Your task to perform on an android device: toggle notifications settings in the gmail app Image 0: 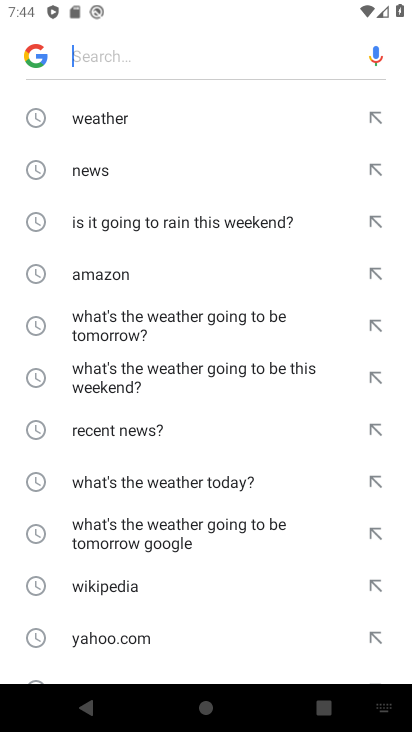
Step 0: press back button
Your task to perform on an android device: toggle notifications settings in the gmail app Image 1: 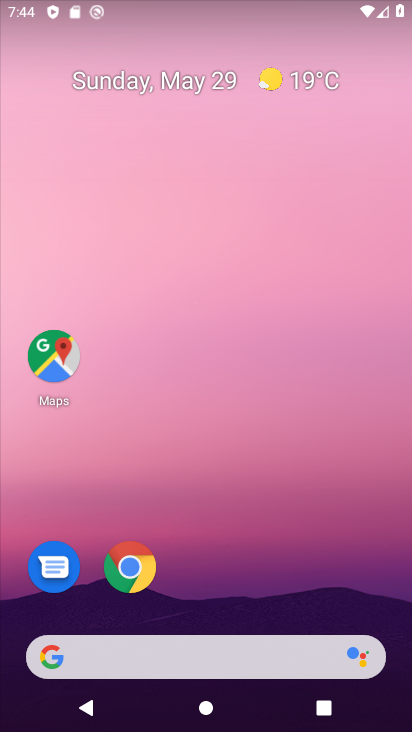
Step 1: drag from (395, 680) to (304, 12)
Your task to perform on an android device: toggle notifications settings in the gmail app Image 2: 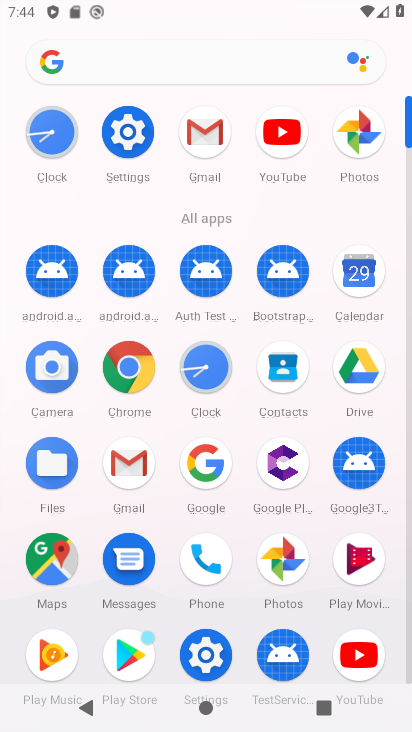
Step 2: click (187, 133)
Your task to perform on an android device: toggle notifications settings in the gmail app Image 3: 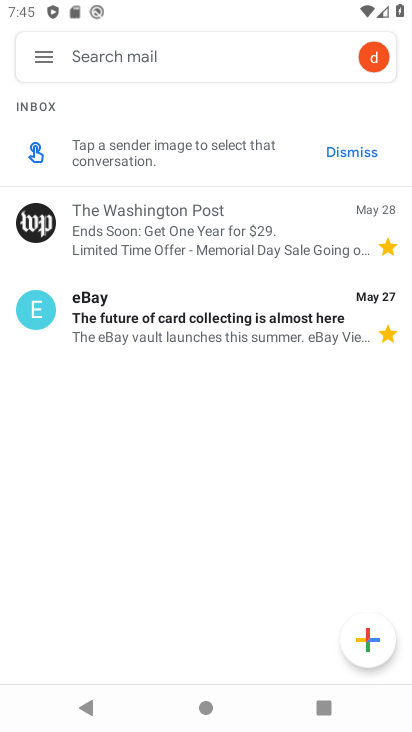
Step 3: click (46, 50)
Your task to perform on an android device: toggle notifications settings in the gmail app Image 4: 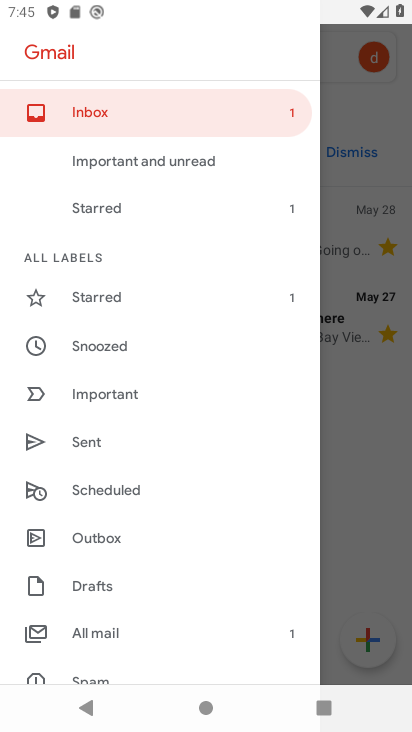
Step 4: drag from (191, 652) to (203, 279)
Your task to perform on an android device: toggle notifications settings in the gmail app Image 5: 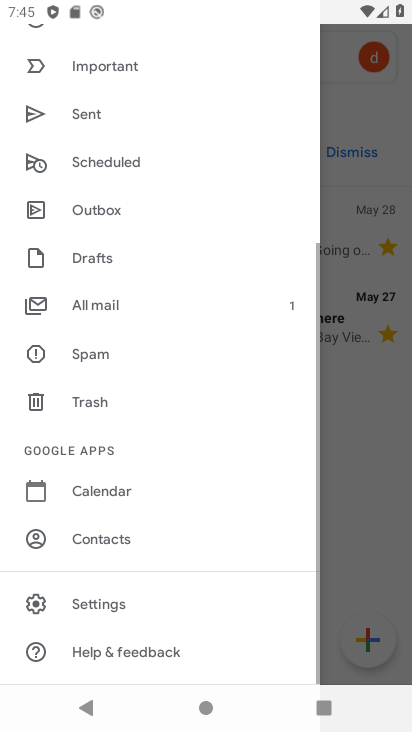
Step 5: click (98, 606)
Your task to perform on an android device: toggle notifications settings in the gmail app Image 6: 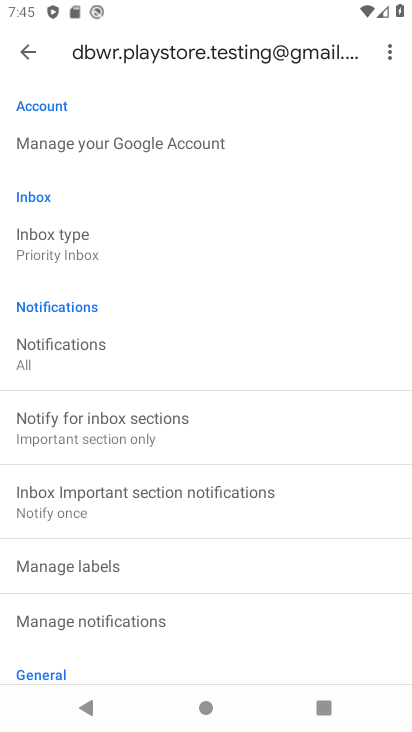
Step 6: click (28, 49)
Your task to perform on an android device: toggle notifications settings in the gmail app Image 7: 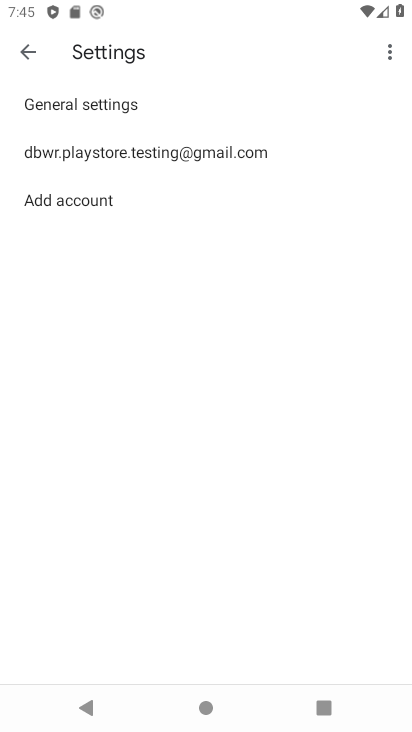
Step 7: click (57, 108)
Your task to perform on an android device: toggle notifications settings in the gmail app Image 8: 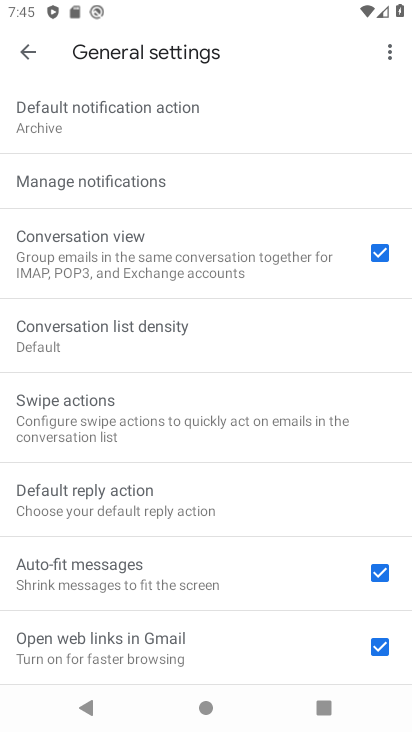
Step 8: click (93, 189)
Your task to perform on an android device: toggle notifications settings in the gmail app Image 9: 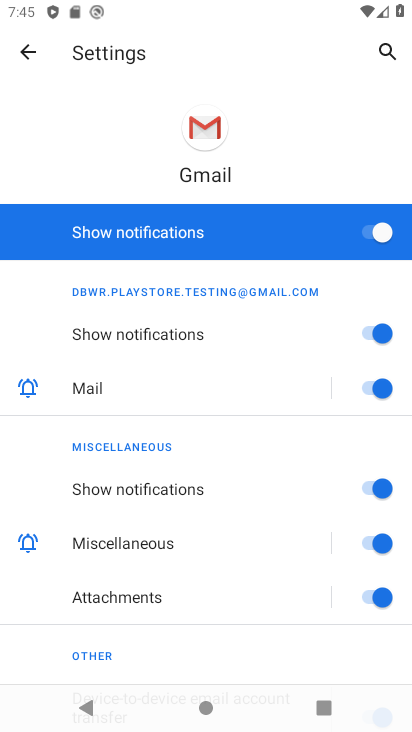
Step 9: click (367, 227)
Your task to perform on an android device: toggle notifications settings in the gmail app Image 10: 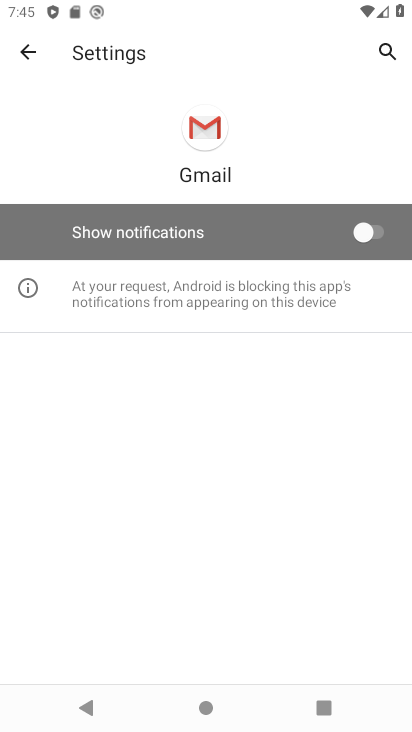
Step 10: task complete